Your task to perform on an android device: check storage Image 0: 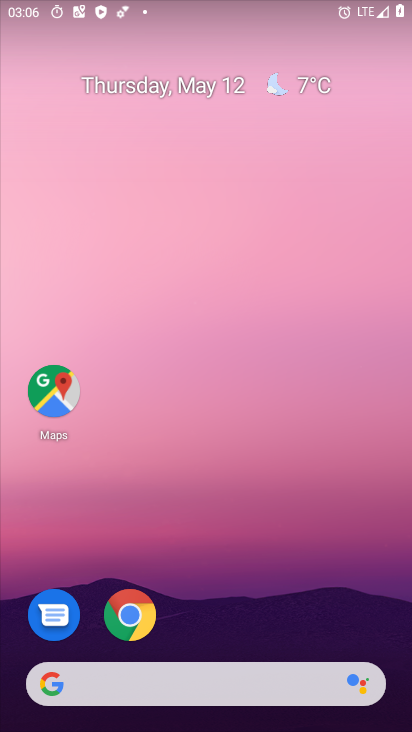
Step 0: drag from (206, 689) to (180, 343)
Your task to perform on an android device: check storage Image 1: 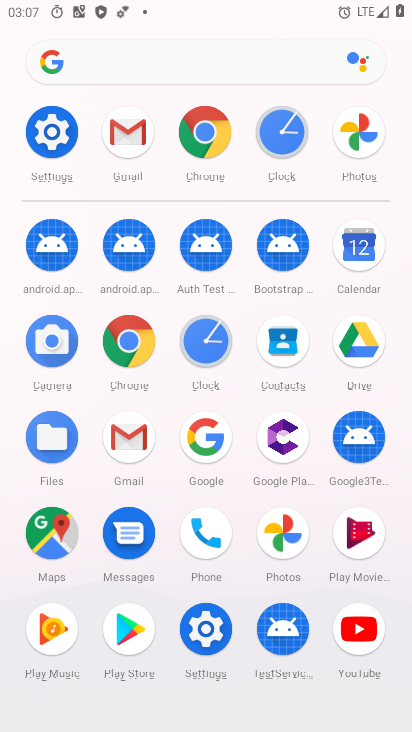
Step 1: click (216, 619)
Your task to perform on an android device: check storage Image 2: 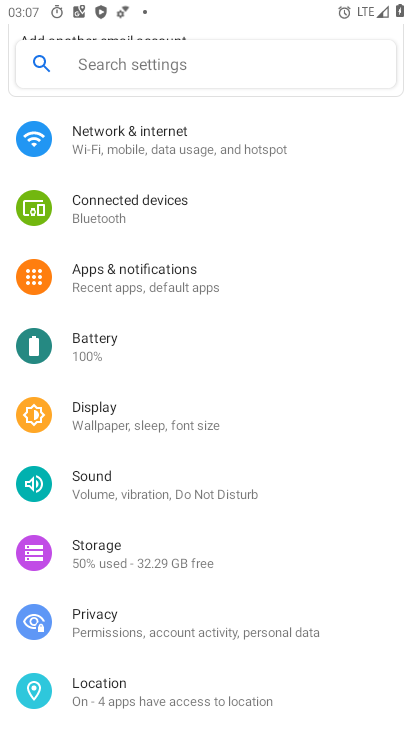
Step 2: click (121, 559)
Your task to perform on an android device: check storage Image 3: 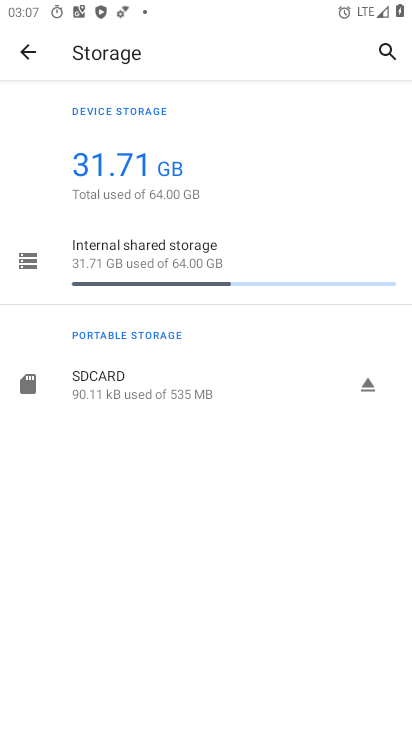
Step 3: click (191, 266)
Your task to perform on an android device: check storage Image 4: 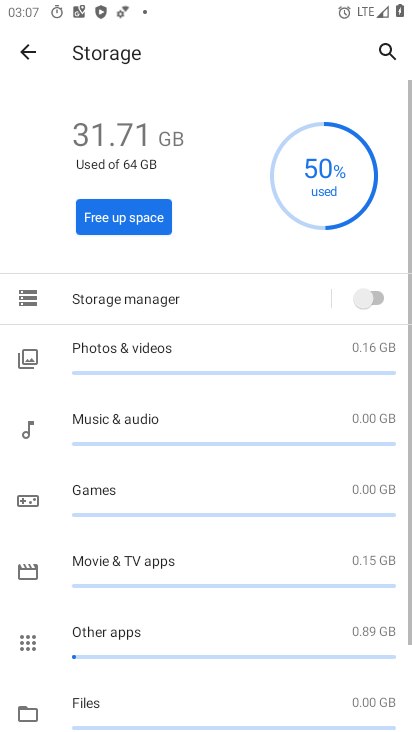
Step 4: task complete